Your task to perform on an android device: Open network settings Image 0: 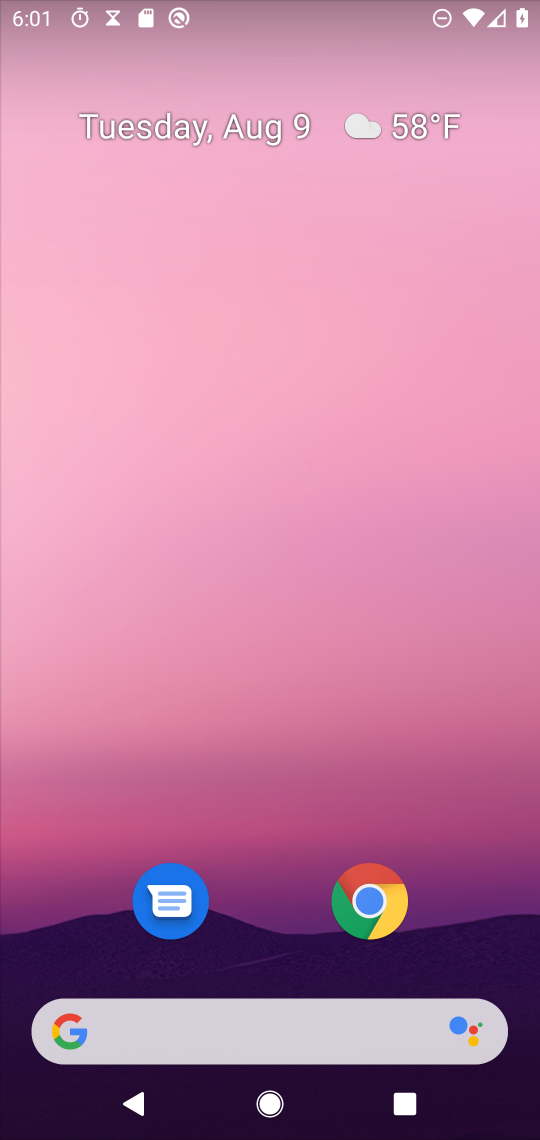
Step 0: drag from (208, 917) to (488, 168)
Your task to perform on an android device: Open network settings Image 1: 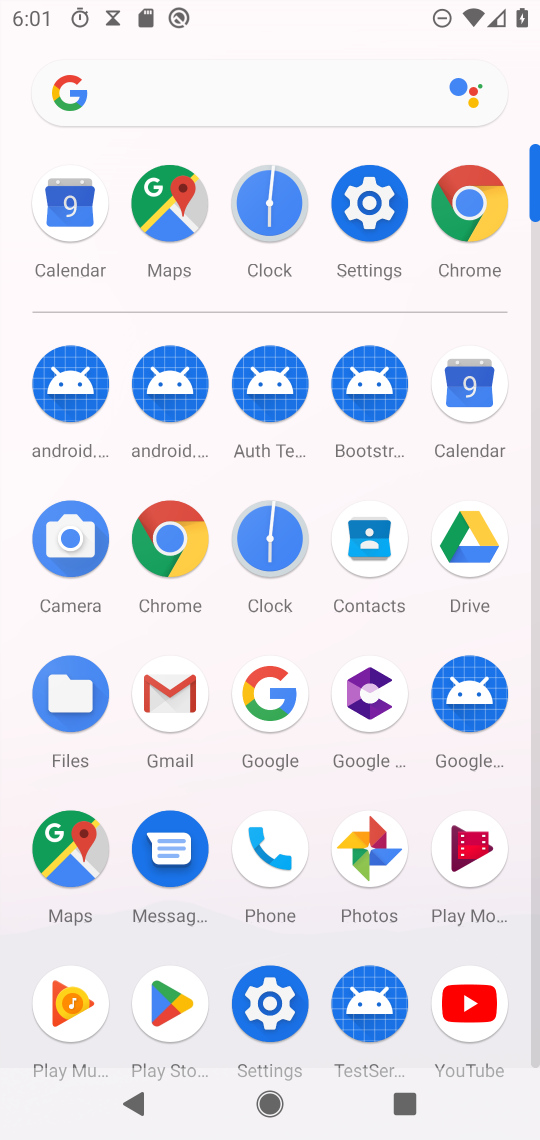
Step 1: click (350, 188)
Your task to perform on an android device: Open network settings Image 2: 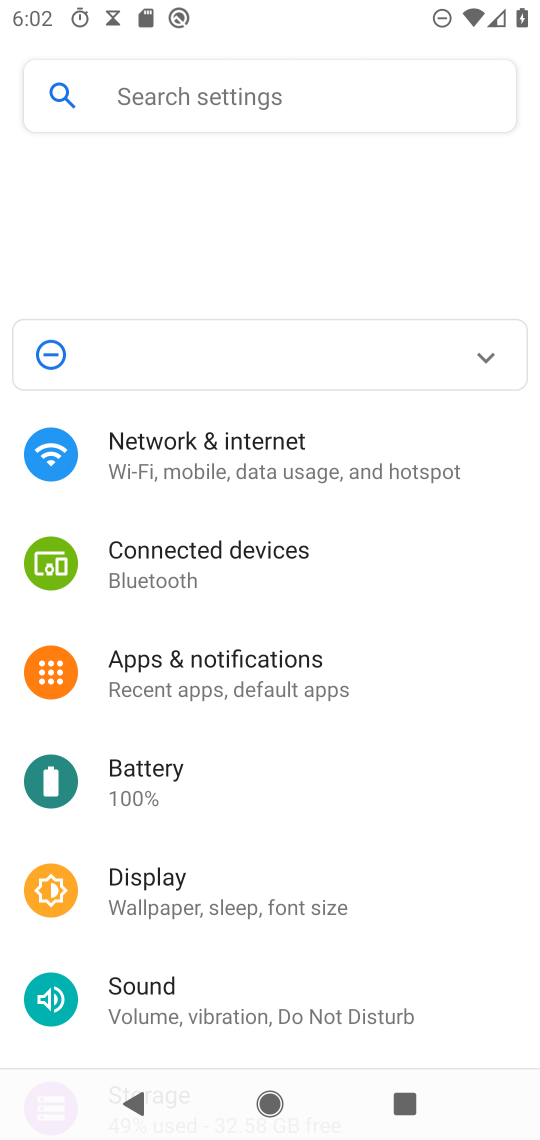
Step 2: click (193, 293)
Your task to perform on an android device: Open network settings Image 3: 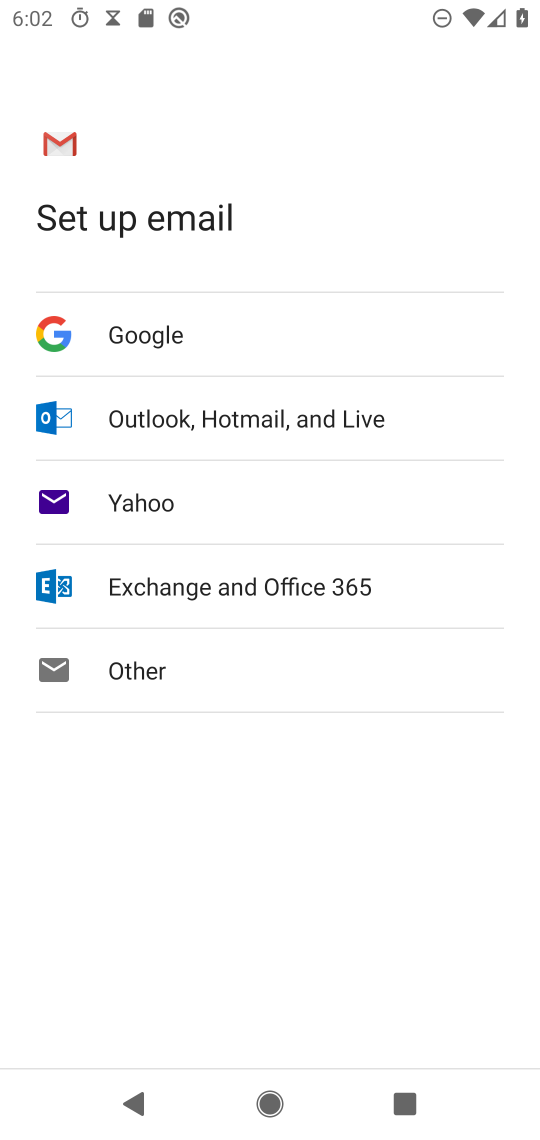
Step 3: task complete